Your task to perform on an android device: add a contact Image 0: 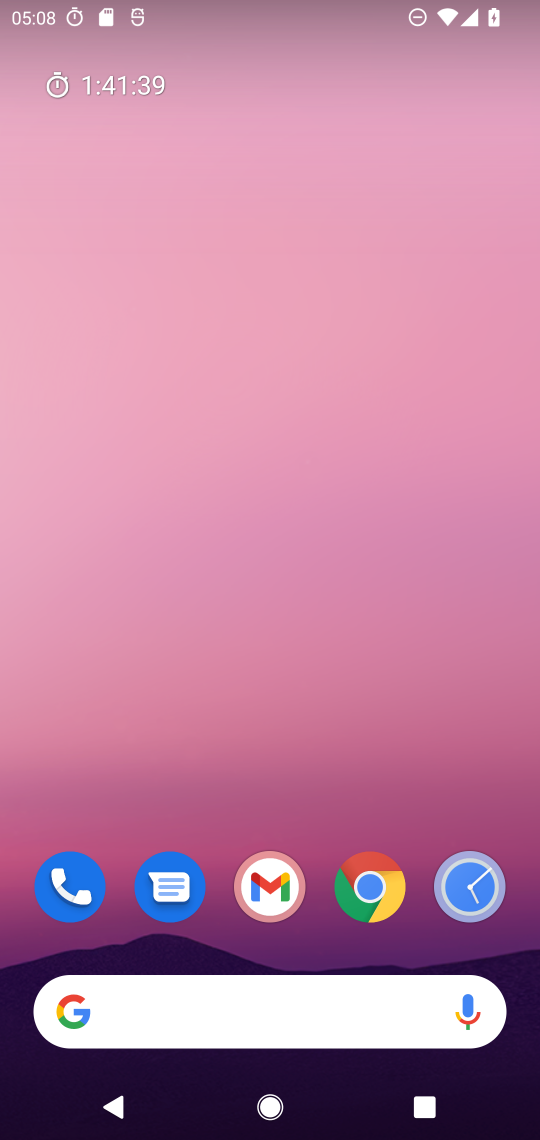
Step 0: press home button
Your task to perform on an android device: add a contact Image 1: 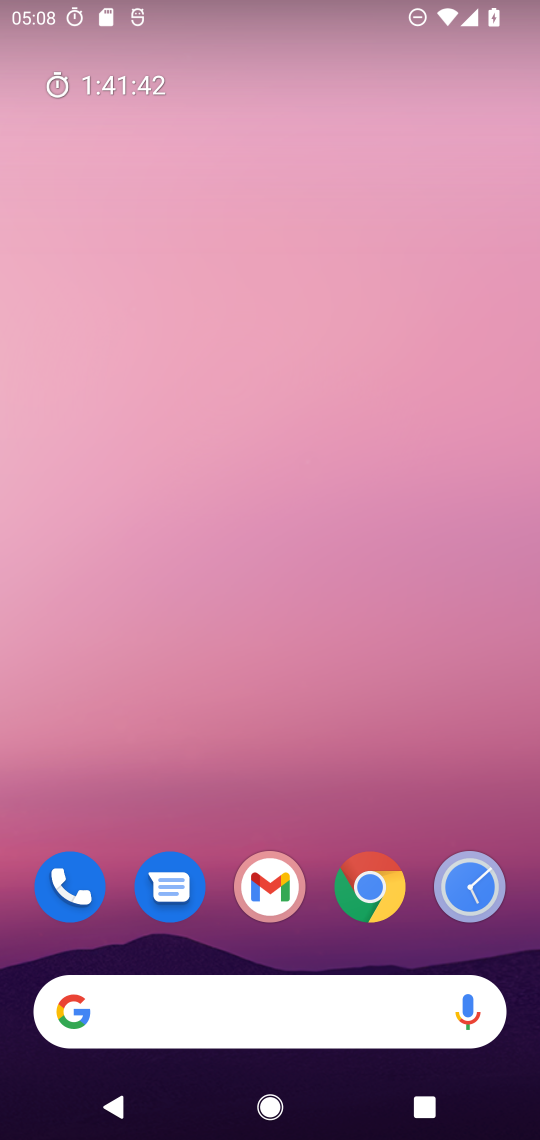
Step 1: drag from (425, 807) to (449, 307)
Your task to perform on an android device: add a contact Image 2: 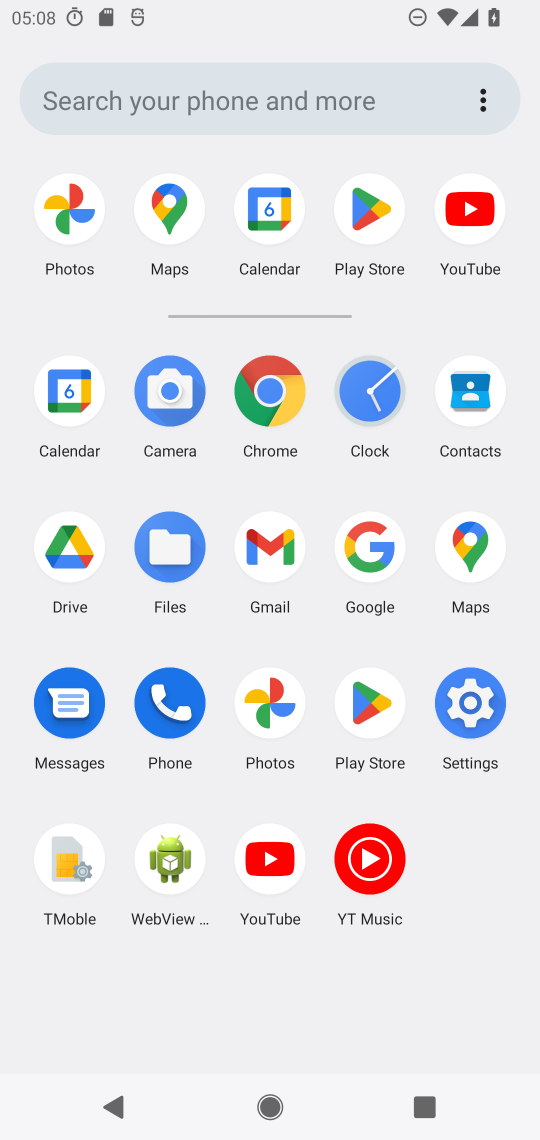
Step 2: click (460, 403)
Your task to perform on an android device: add a contact Image 3: 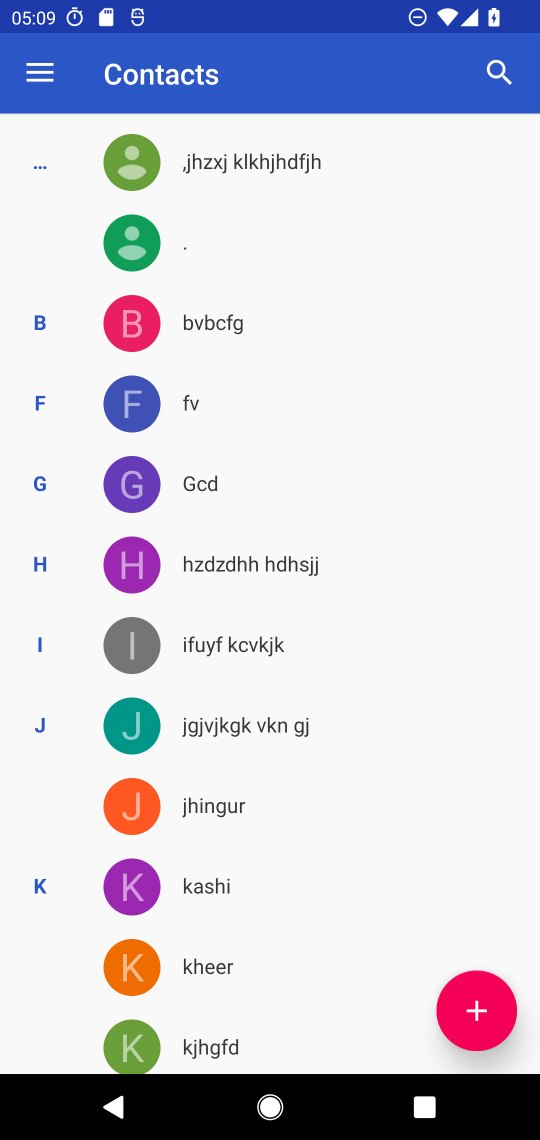
Step 3: click (480, 1012)
Your task to perform on an android device: add a contact Image 4: 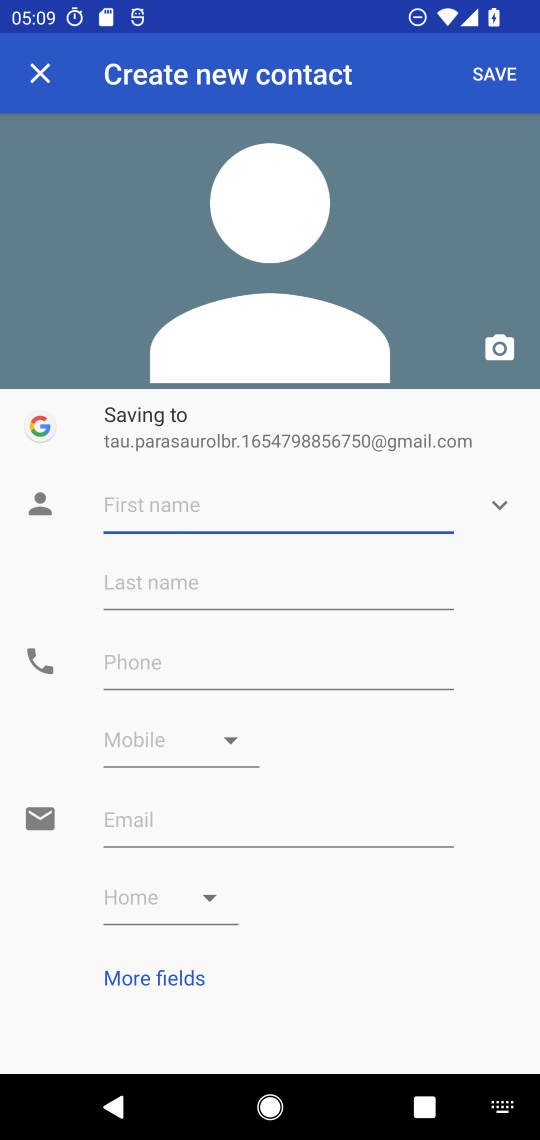
Step 4: type "lolo"
Your task to perform on an android device: add a contact Image 5: 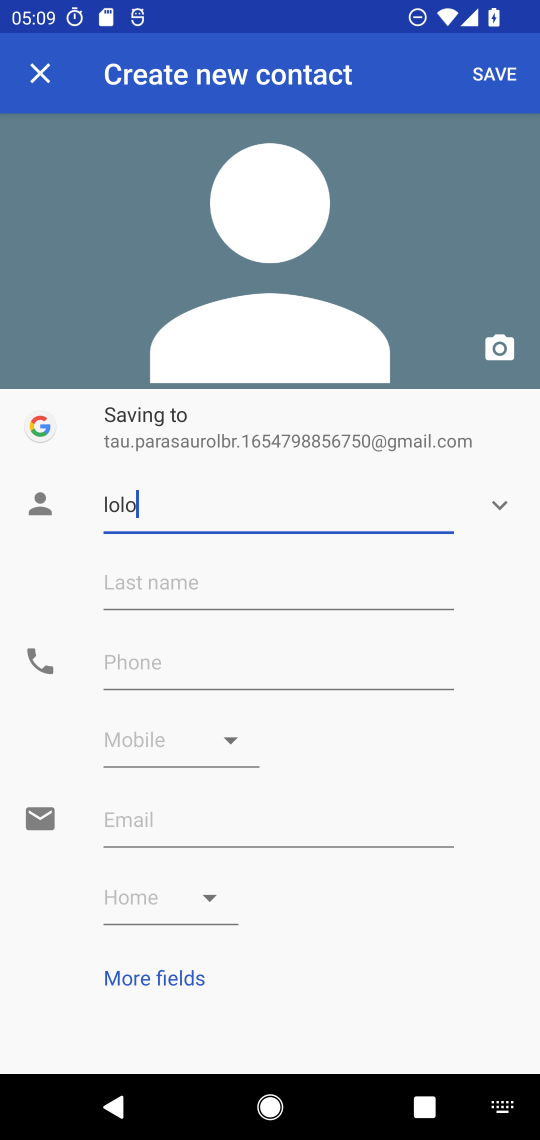
Step 5: click (348, 688)
Your task to perform on an android device: add a contact Image 6: 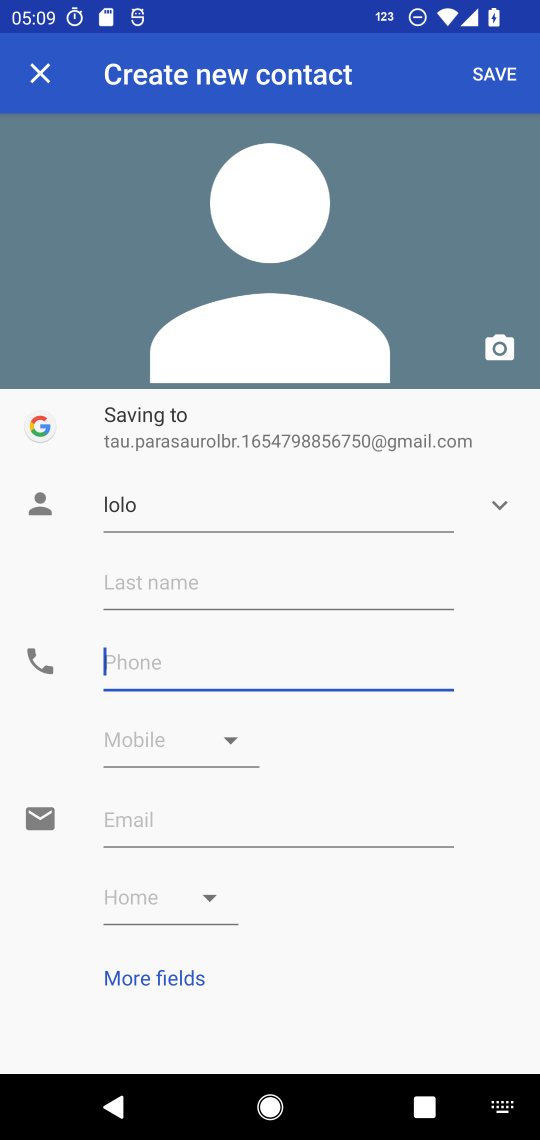
Step 6: type "123455667788"
Your task to perform on an android device: add a contact Image 7: 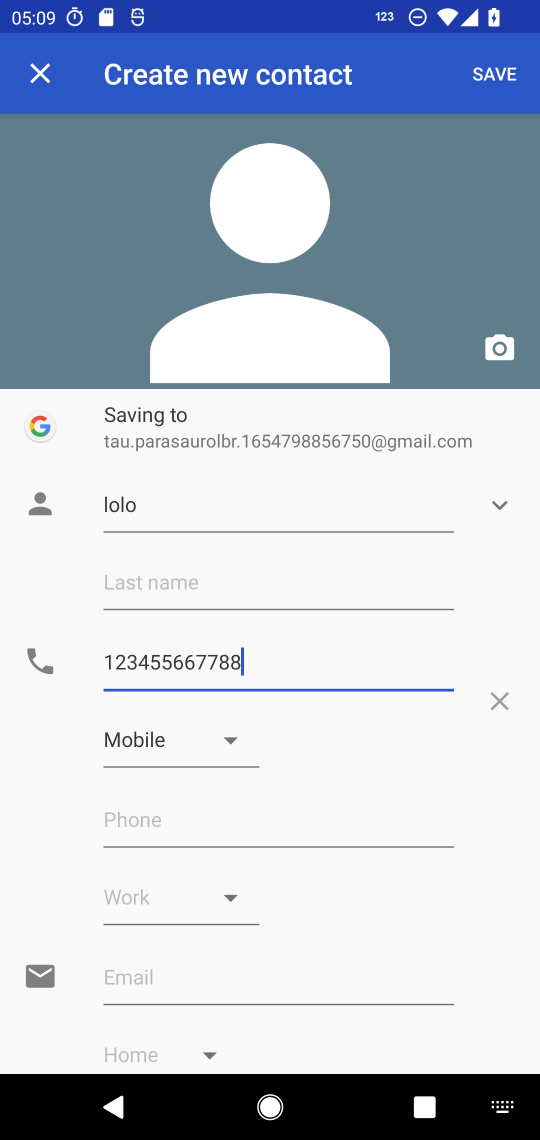
Step 7: click (498, 71)
Your task to perform on an android device: add a contact Image 8: 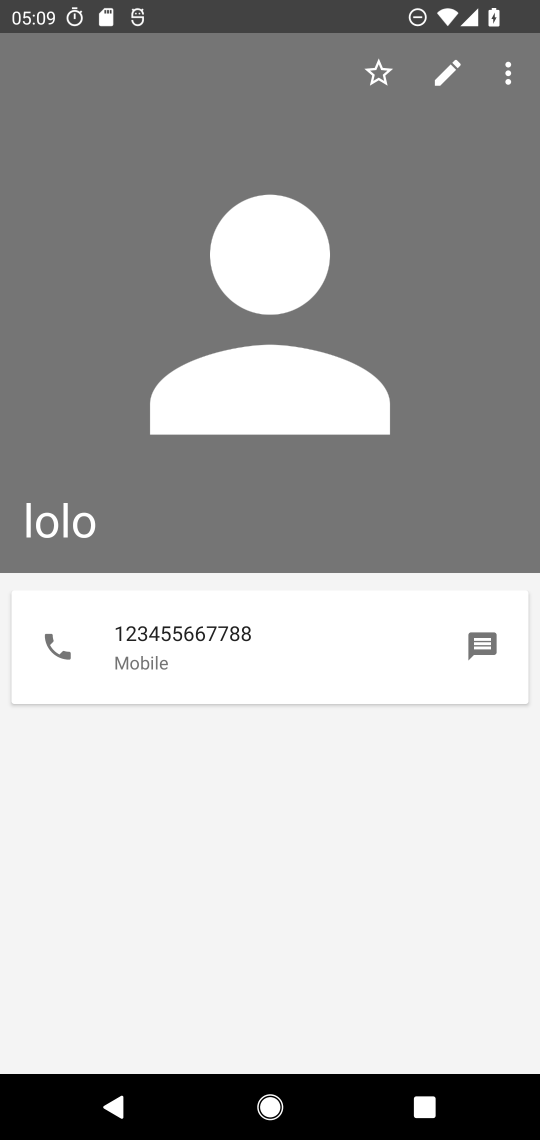
Step 8: task complete